Your task to perform on an android device: turn on notifications settings in the gmail app Image 0: 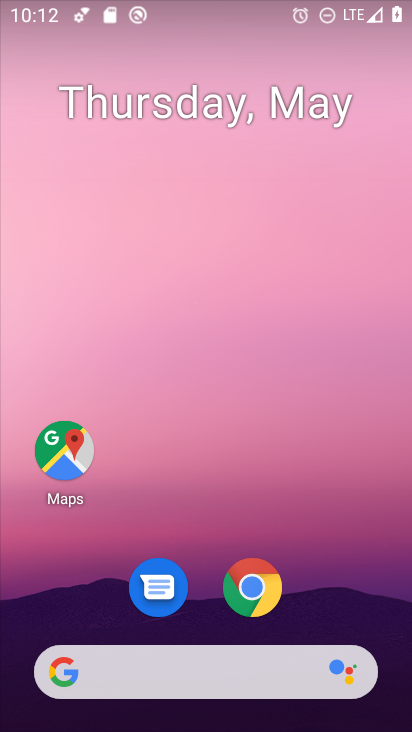
Step 0: drag from (364, 590) to (341, 9)
Your task to perform on an android device: turn on notifications settings in the gmail app Image 1: 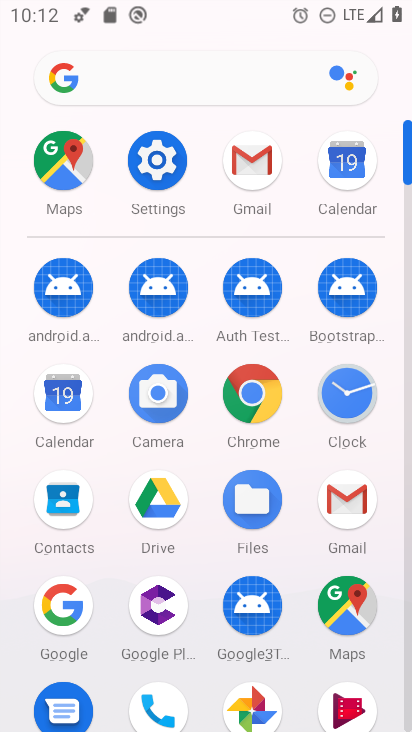
Step 1: click (254, 161)
Your task to perform on an android device: turn on notifications settings in the gmail app Image 2: 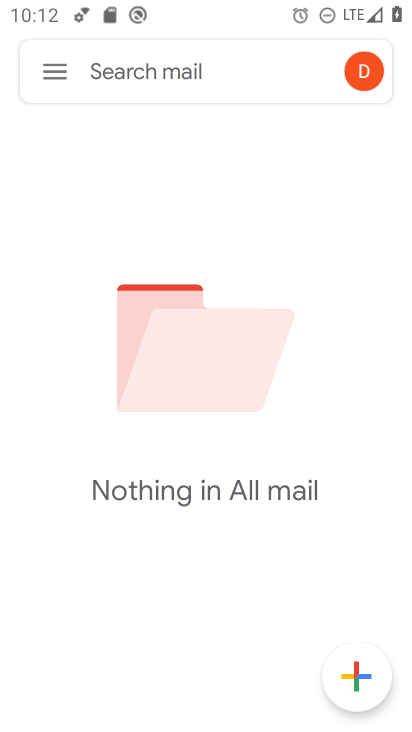
Step 2: click (52, 72)
Your task to perform on an android device: turn on notifications settings in the gmail app Image 3: 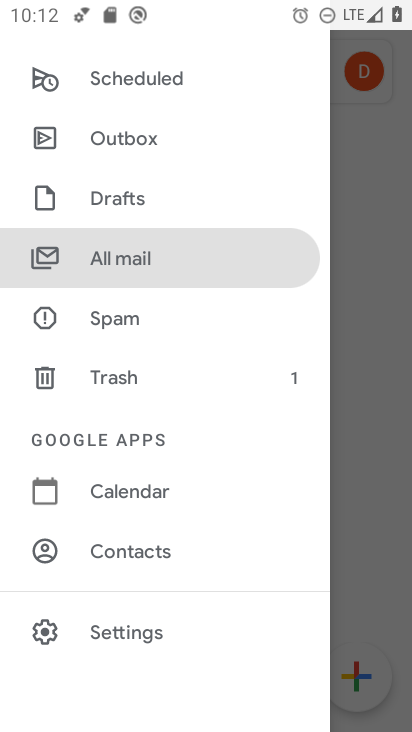
Step 3: click (132, 631)
Your task to perform on an android device: turn on notifications settings in the gmail app Image 4: 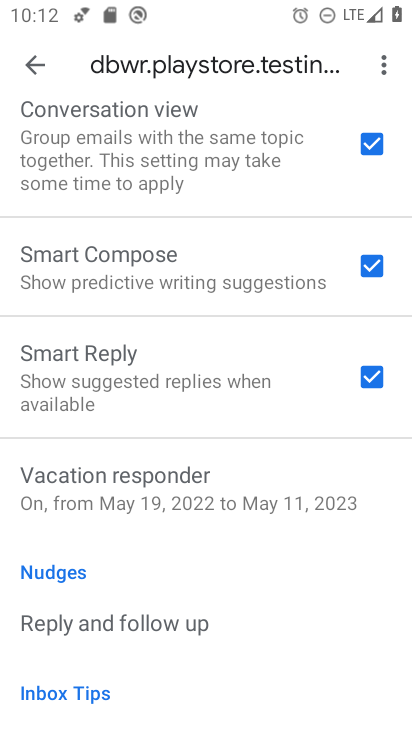
Step 4: click (28, 69)
Your task to perform on an android device: turn on notifications settings in the gmail app Image 5: 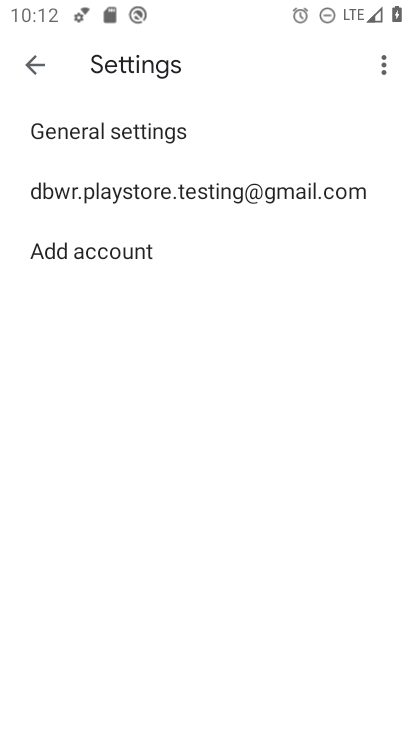
Step 5: click (93, 141)
Your task to perform on an android device: turn on notifications settings in the gmail app Image 6: 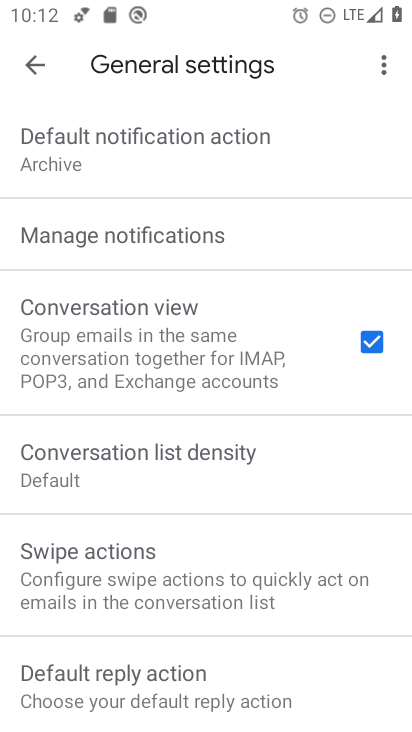
Step 6: click (102, 240)
Your task to perform on an android device: turn on notifications settings in the gmail app Image 7: 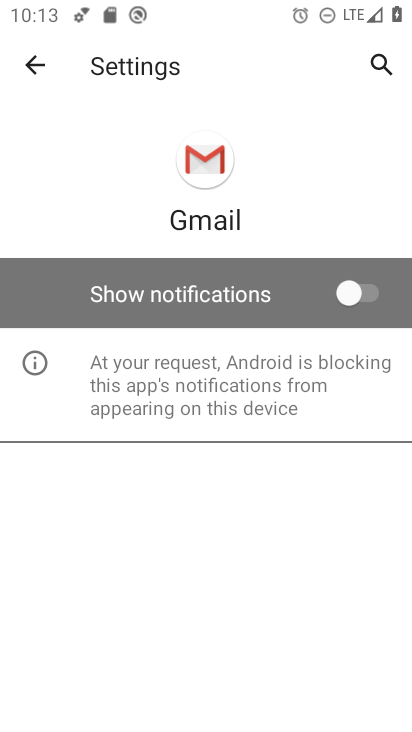
Step 7: click (357, 276)
Your task to perform on an android device: turn on notifications settings in the gmail app Image 8: 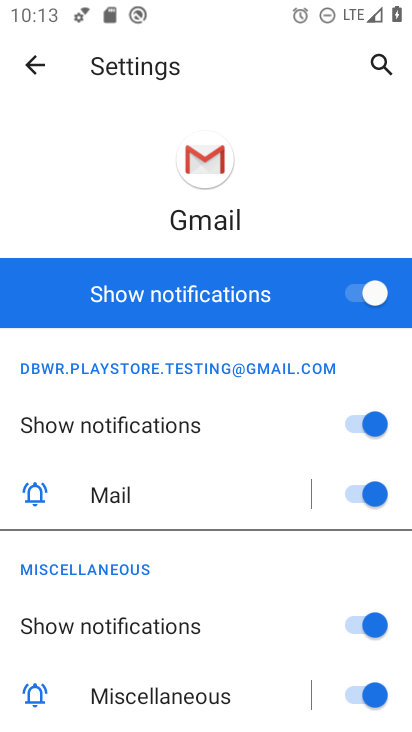
Step 8: task complete